Your task to perform on an android device: turn on priority inbox in the gmail app Image 0: 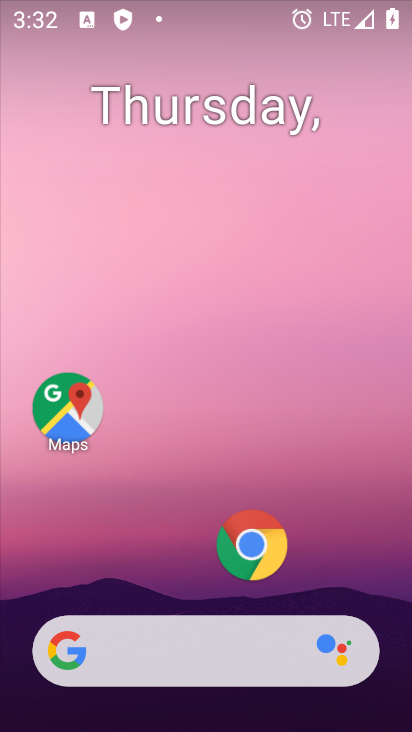
Step 0: drag from (248, 689) to (228, 10)
Your task to perform on an android device: turn on priority inbox in the gmail app Image 1: 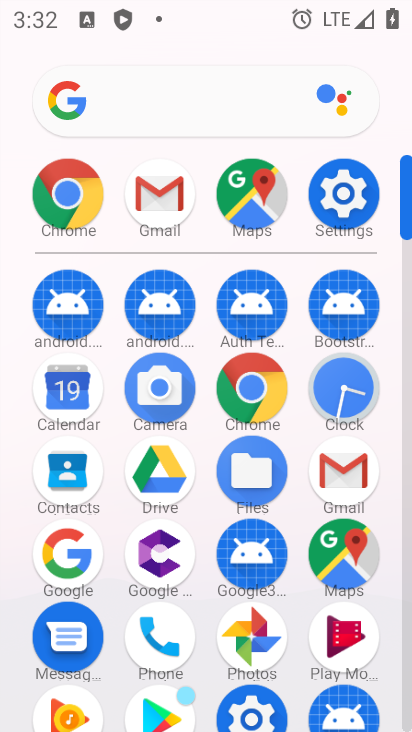
Step 1: click (350, 461)
Your task to perform on an android device: turn on priority inbox in the gmail app Image 2: 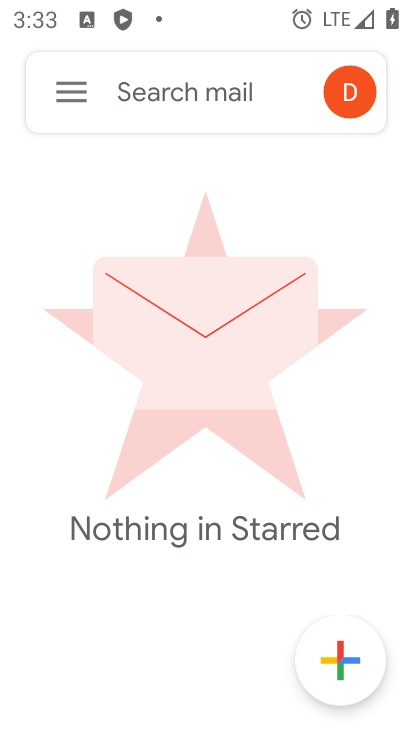
Step 2: press home button
Your task to perform on an android device: turn on priority inbox in the gmail app Image 3: 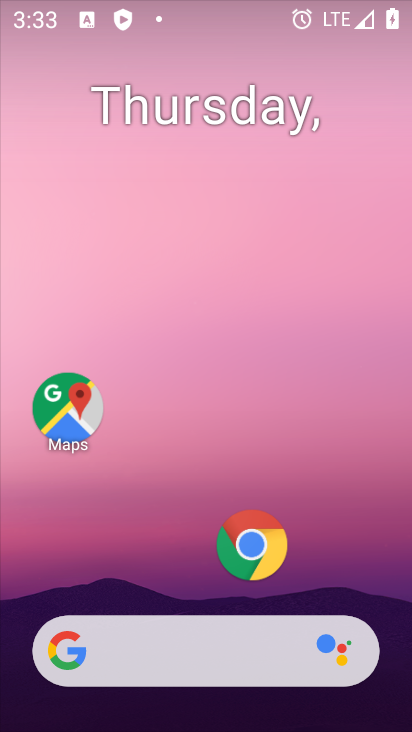
Step 3: drag from (277, 542) to (258, 161)
Your task to perform on an android device: turn on priority inbox in the gmail app Image 4: 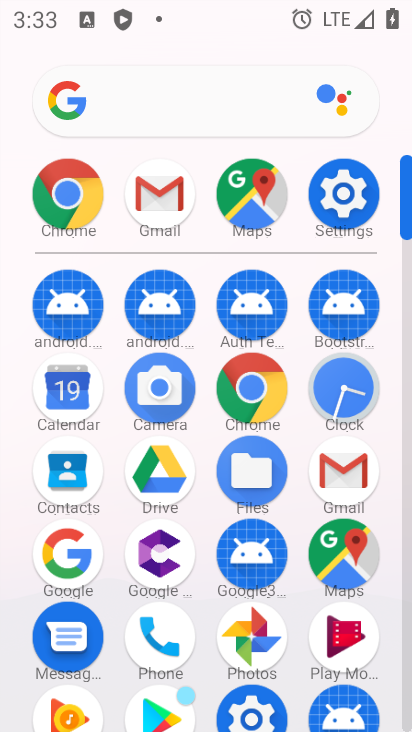
Step 4: click (359, 476)
Your task to perform on an android device: turn on priority inbox in the gmail app Image 5: 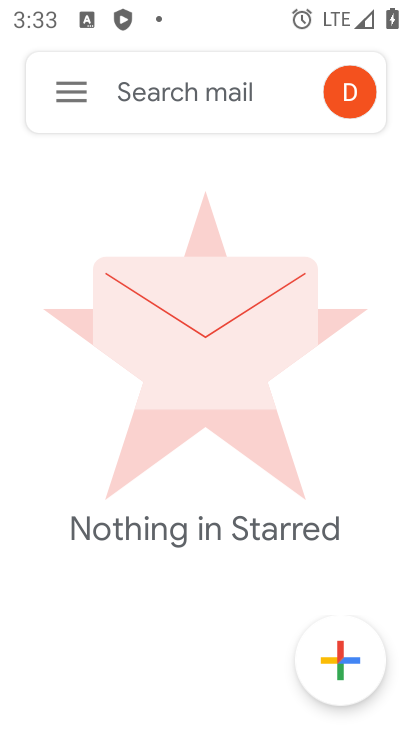
Step 5: click (57, 80)
Your task to perform on an android device: turn on priority inbox in the gmail app Image 6: 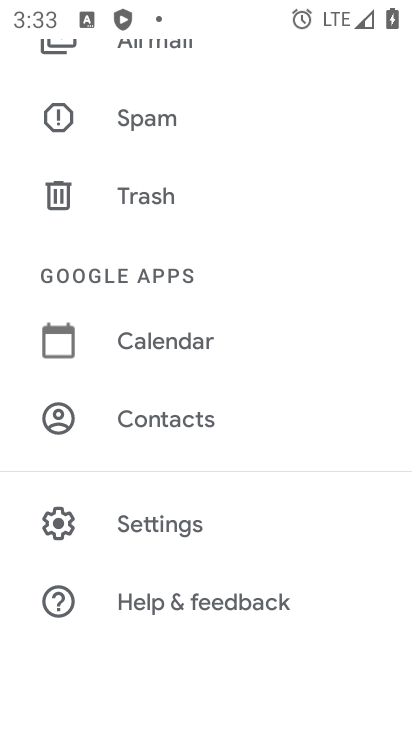
Step 6: click (186, 519)
Your task to perform on an android device: turn on priority inbox in the gmail app Image 7: 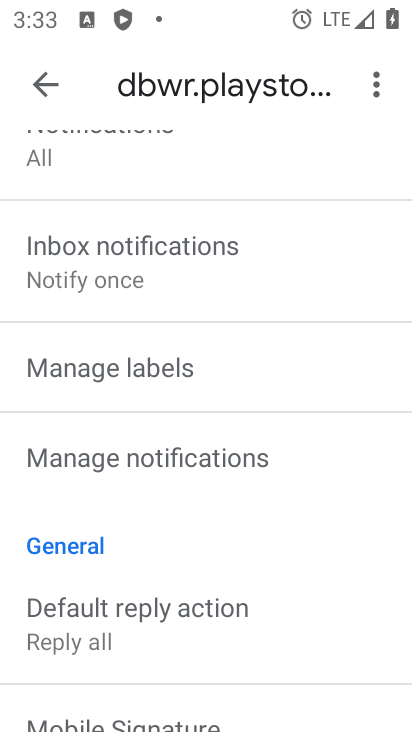
Step 7: drag from (200, 526) to (250, 75)
Your task to perform on an android device: turn on priority inbox in the gmail app Image 8: 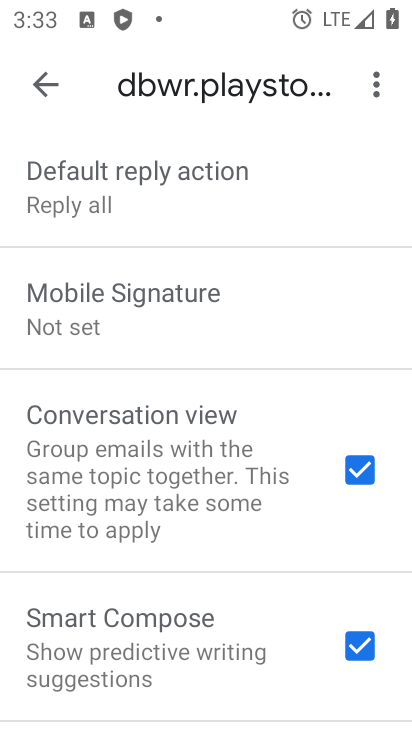
Step 8: drag from (205, 234) to (303, 731)
Your task to perform on an android device: turn on priority inbox in the gmail app Image 9: 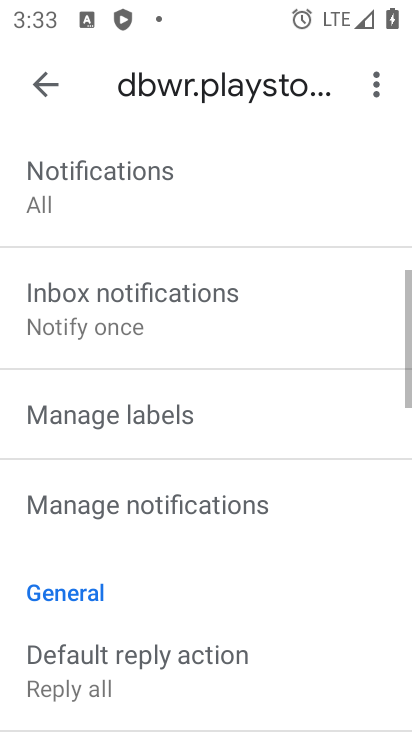
Step 9: drag from (224, 209) to (188, 724)
Your task to perform on an android device: turn on priority inbox in the gmail app Image 10: 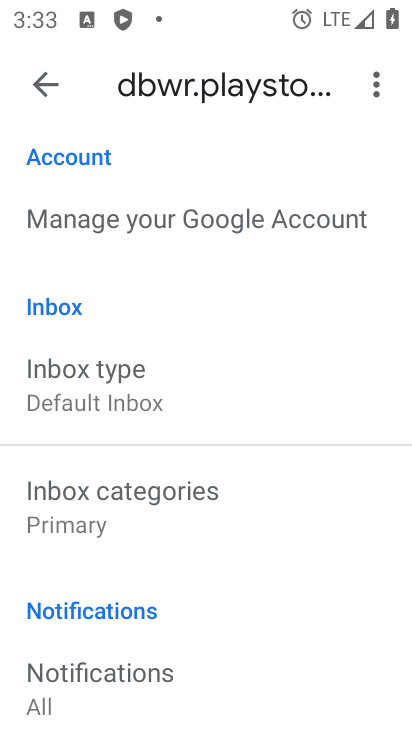
Step 10: click (118, 379)
Your task to perform on an android device: turn on priority inbox in the gmail app Image 11: 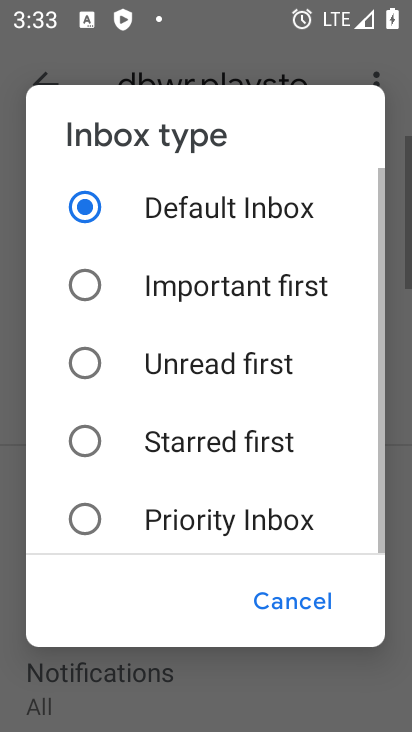
Step 11: click (172, 506)
Your task to perform on an android device: turn on priority inbox in the gmail app Image 12: 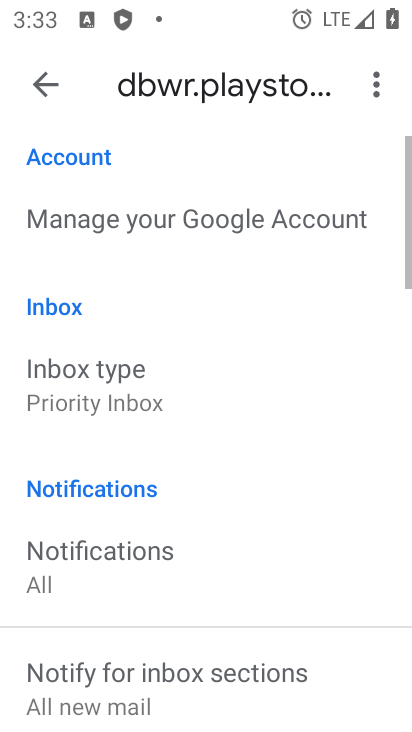
Step 12: task complete